Your task to perform on an android device: turn off location history Image 0: 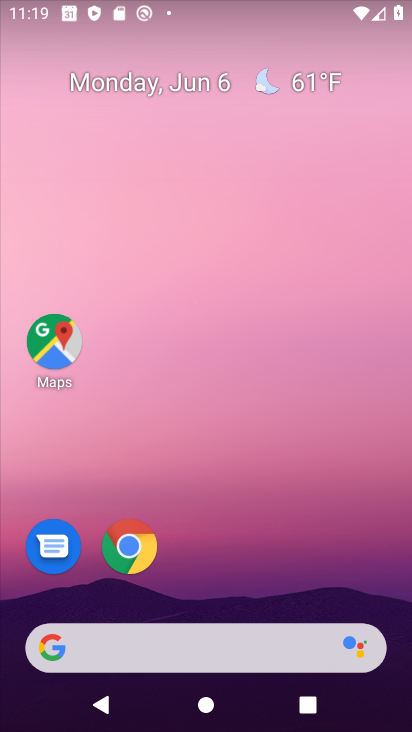
Step 0: drag from (221, 575) to (321, 56)
Your task to perform on an android device: turn off location history Image 1: 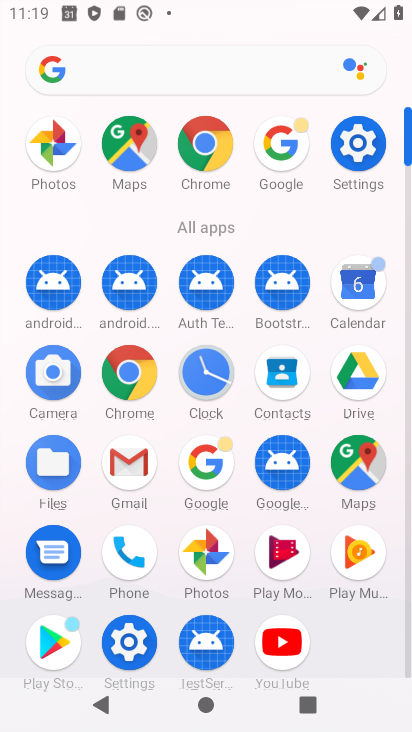
Step 1: click (360, 146)
Your task to perform on an android device: turn off location history Image 2: 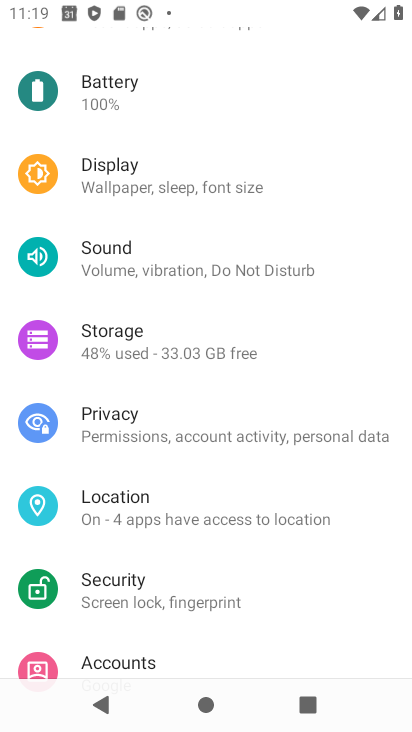
Step 2: click (133, 506)
Your task to perform on an android device: turn off location history Image 3: 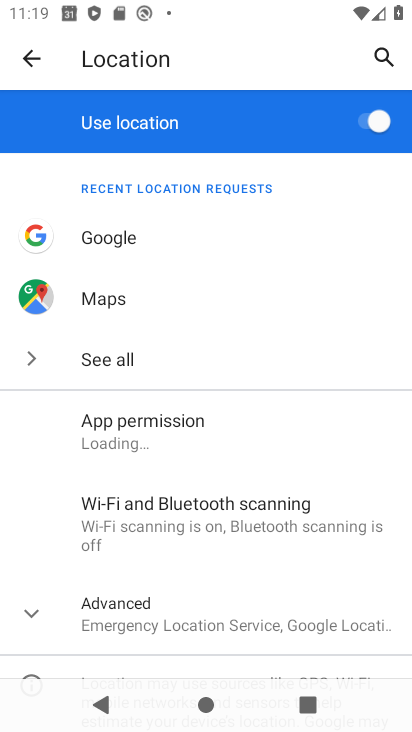
Step 3: click (156, 616)
Your task to perform on an android device: turn off location history Image 4: 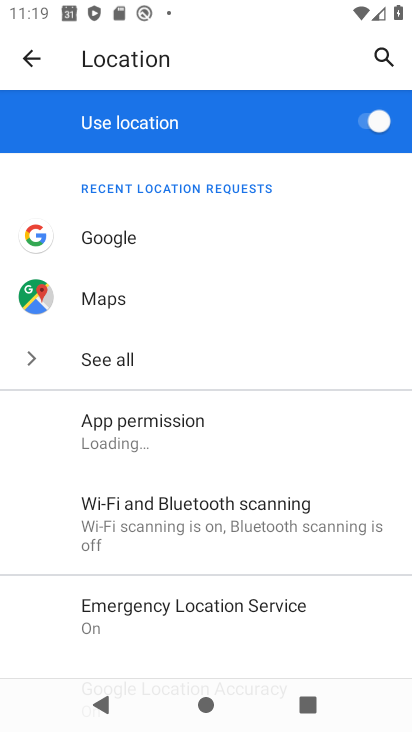
Step 4: drag from (190, 624) to (274, 171)
Your task to perform on an android device: turn off location history Image 5: 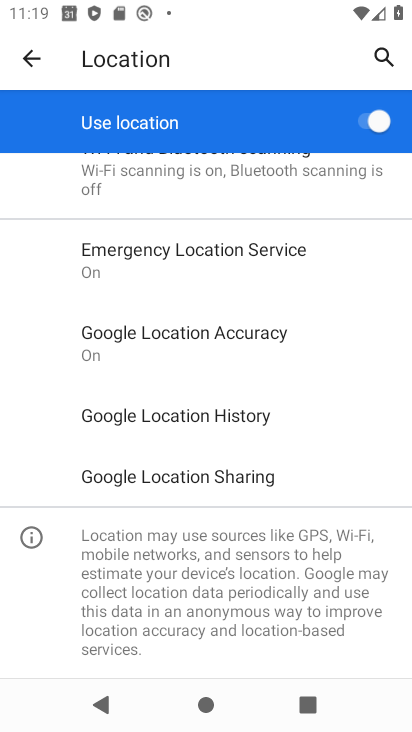
Step 5: click (207, 418)
Your task to perform on an android device: turn off location history Image 6: 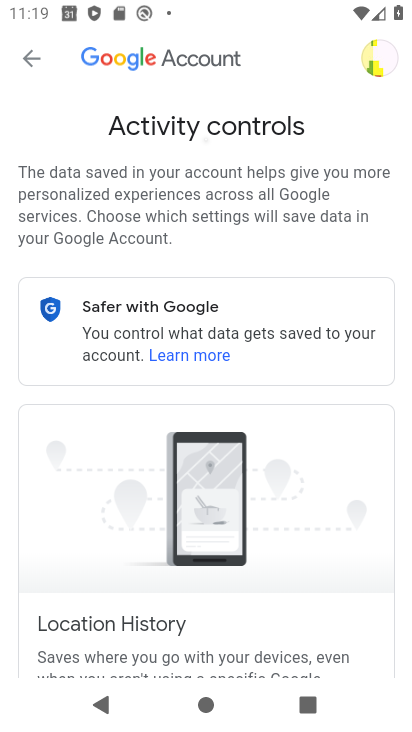
Step 6: task complete